Your task to perform on an android device: Show me productivity apps on the Play Store Image 0: 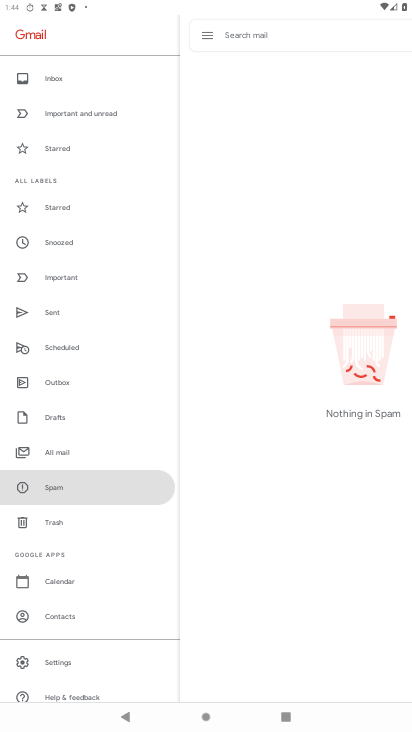
Step 0: press home button
Your task to perform on an android device: Show me productivity apps on the Play Store Image 1: 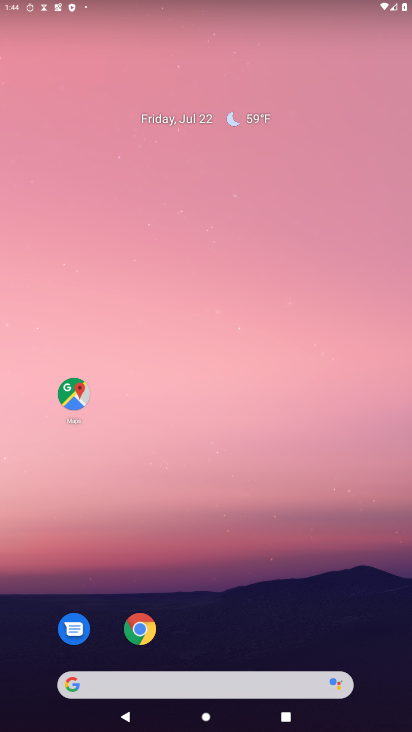
Step 1: press home button
Your task to perform on an android device: Show me productivity apps on the Play Store Image 2: 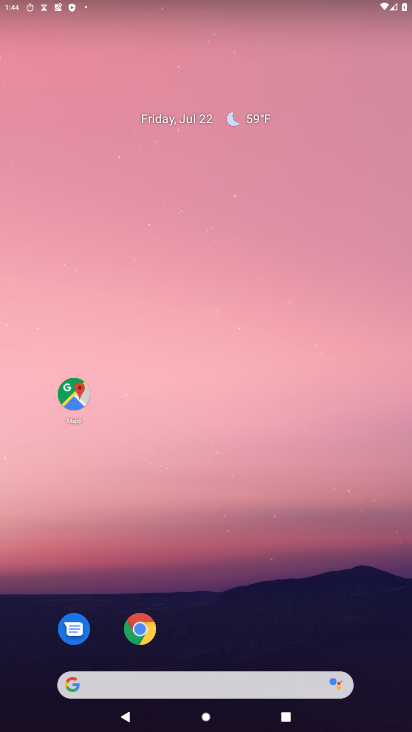
Step 2: drag from (266, 633) to (268, 0)
Your task to perform on an android device: Show me productivity apps on the Play Store Image 3: 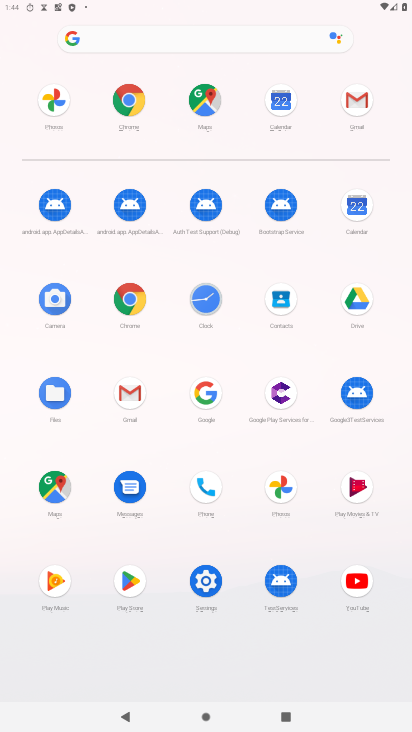
Step 3: click (120, 592)
Your task to perform on an android device: Show me productivity apps on the Play Store Image 4: 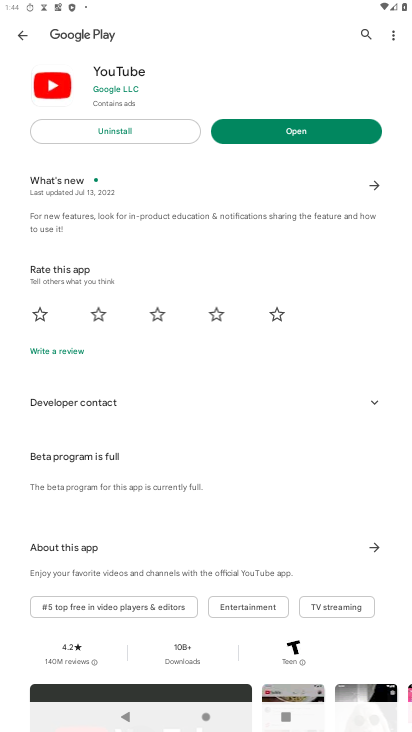
Step 4: press back button
Your task to perform on an android device: Show me productivity apps on the Play Store Image 5: 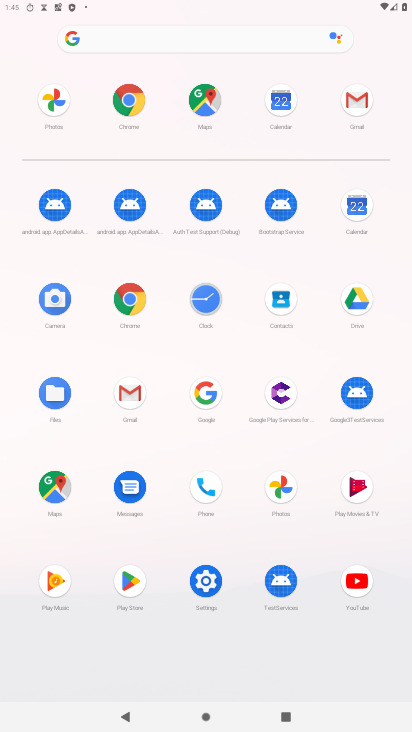
Step 5: click (125, 586)
Your task to perform on an android device: Show me productivity apps on the Play Store Image 6: 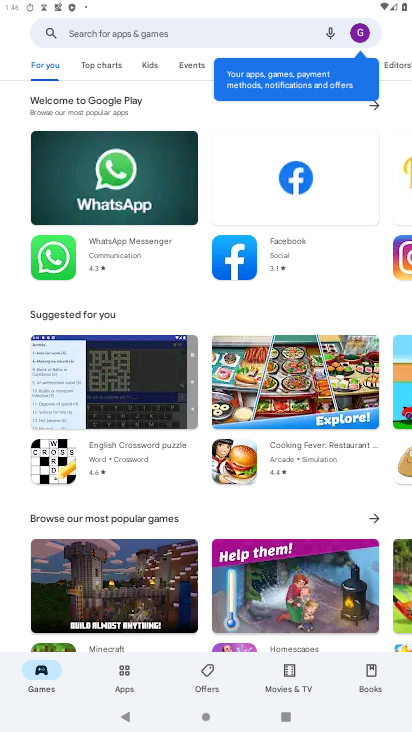
Step 6: press home button
Your task to perform on an android device: Show me productivity apps on the Play Store Image 7: 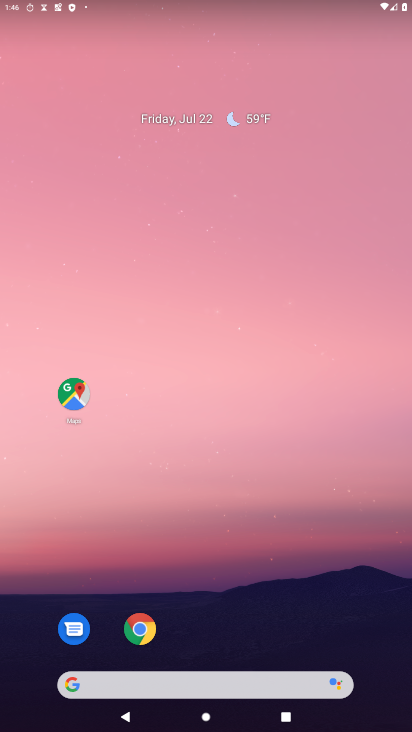
Step 7: drag from (277, 694) to (233, 286)
Your task to perform on an android device: Show me productivity apps on the Play Store Image 8: 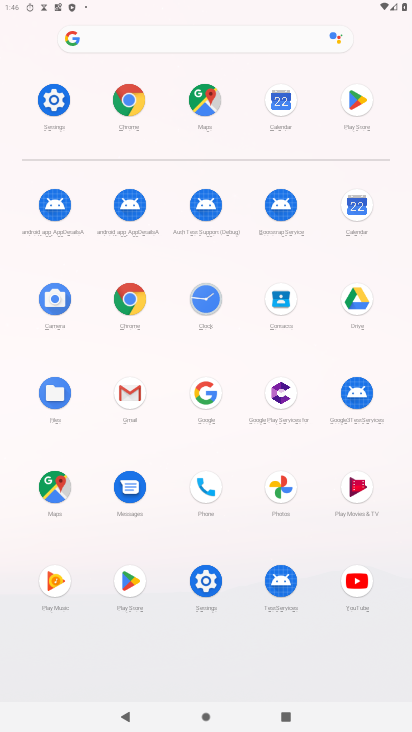
Step 8: click (144, 579)
Your task to perform on an android device: Show me productivity apps on the Play Store Image 9: 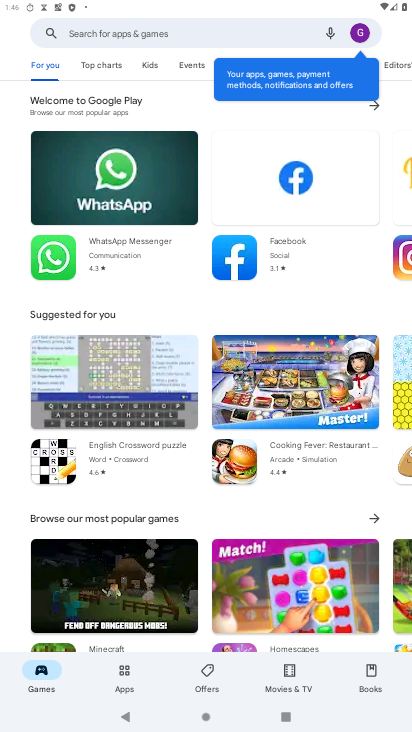
Step 9: click (123, 671)
Your task to perform on an android device: Show me productivity apps on the Play Store Image 10: 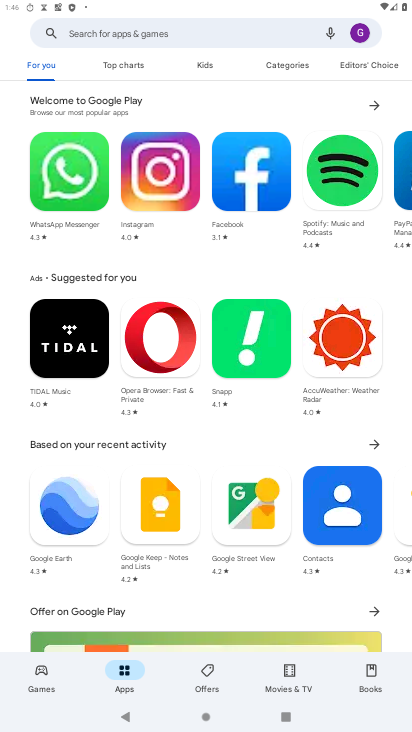
Step 10: drag from (147, 579) to (268, 57)
Your task to perform on an android device: Show me productivity apps on the Play Store Image 11: 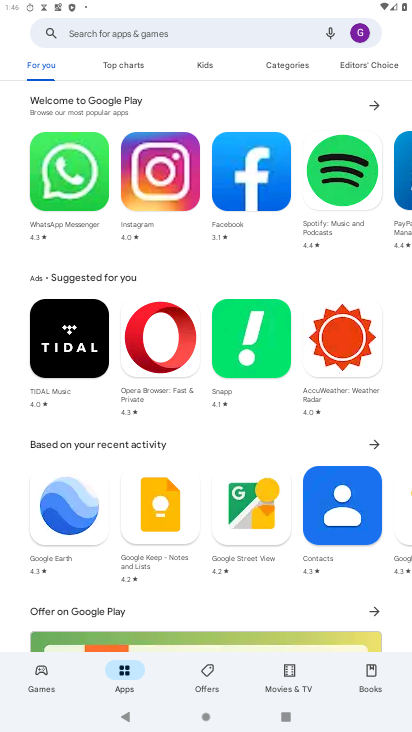
Step 11: drag from (170, 639) to (258, 190)
Your task to perform on an android device: Show me productivity apps on the Play Store Image 12: 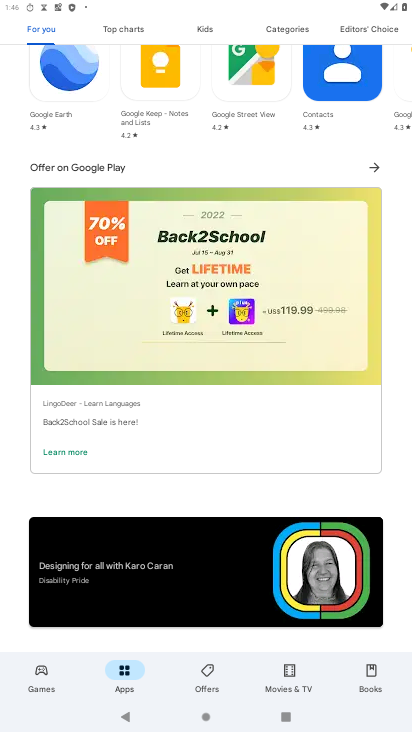
Step 12: drag from (144, 627) to (241, 194)
Your task to perform on an android device: Show me productivity apps on the Play Store Image 13: 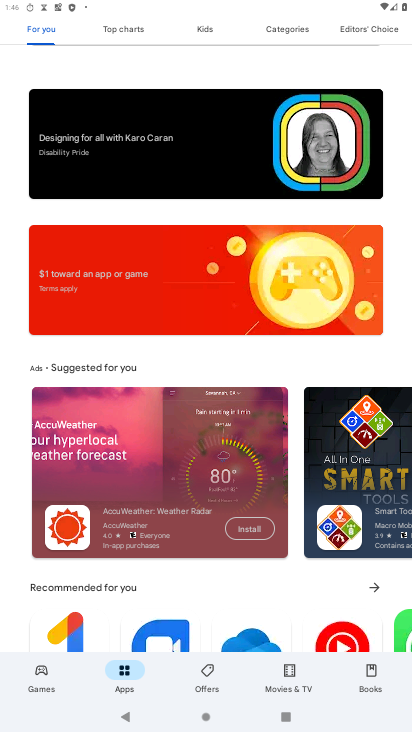
Step 13: drag from (161, 593) to (320, 126)
Your task to perform on an android device: Show me productivity apps on the Play Store Image 14: 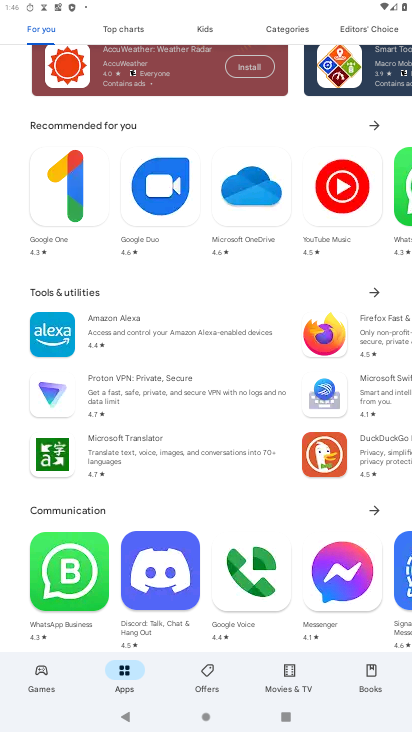
Step 14: drag from (231, 579) to (383, 78)
Your task to perform on an android device: Show me productivity apps on the Play Store Image 15: 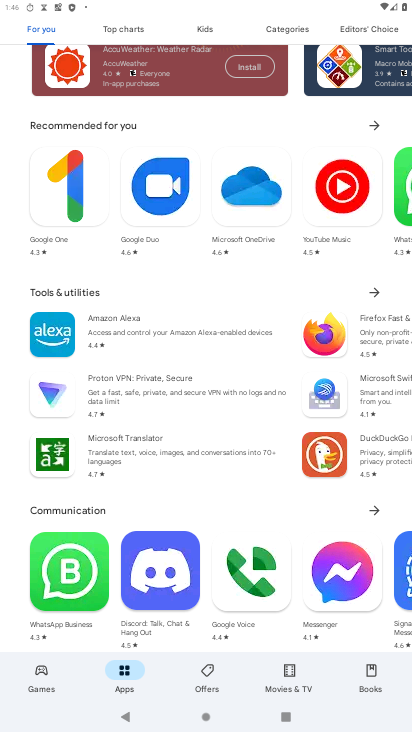
Step 15: drag from (141, 506) to (267, 35)
Your task to perform on an android device: Show me productivity apps on the Play Store Image 16: 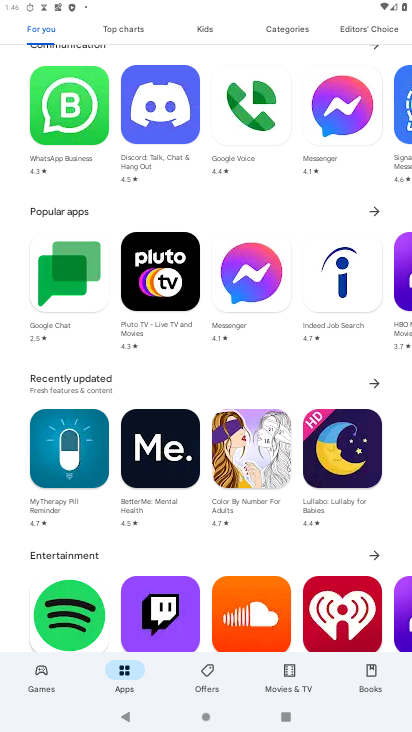
Step 16: drag from (51, 598) to (312, 112)
Your task to perform on an android device: Show me productivity apps on the Play Store Image 17: 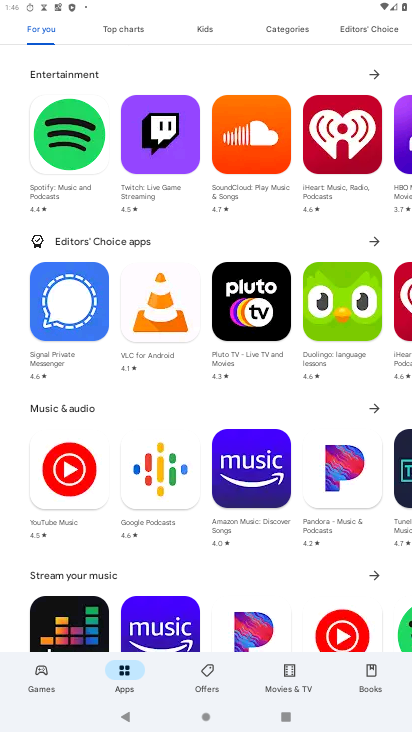
Step 17: drag from (248, 516) to (205, 185)
Your task to perform on an android device: Show me productivity apps on the Play Store Image 18: 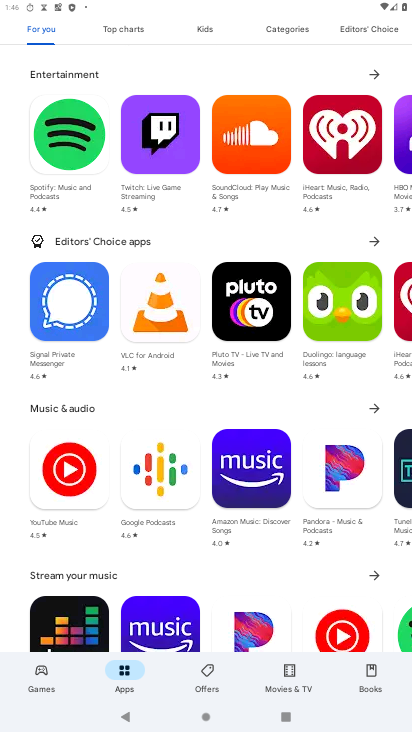
Step 18: drag from (188, 570) to (216, 36)
Your task to perform on an android device: Show me productivity apps on the Play Store Image 19: 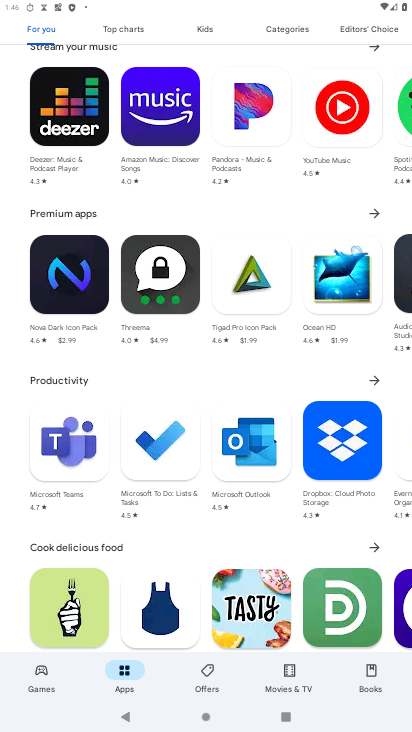
Step 19: click (383, 381)
Your task to perform on an android device: Show me productivity apps on the Play Store Image 20: 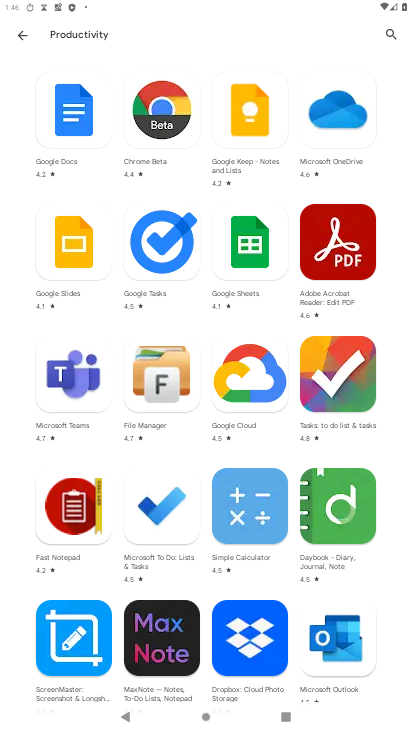
Step 20: task complete